Your task to perform on an android device: find snoozed emails in the gmail app Image 0: 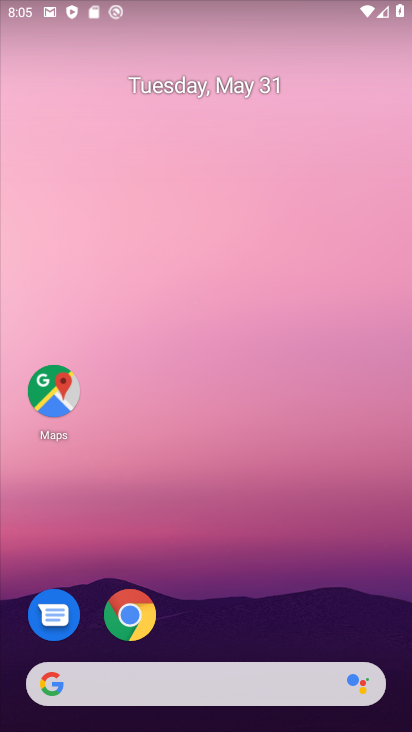
Step 0: drag from (394, 639) to (314, 42)
Your task to perform on an android device: find snoozed emails in the gmail app Image 1: 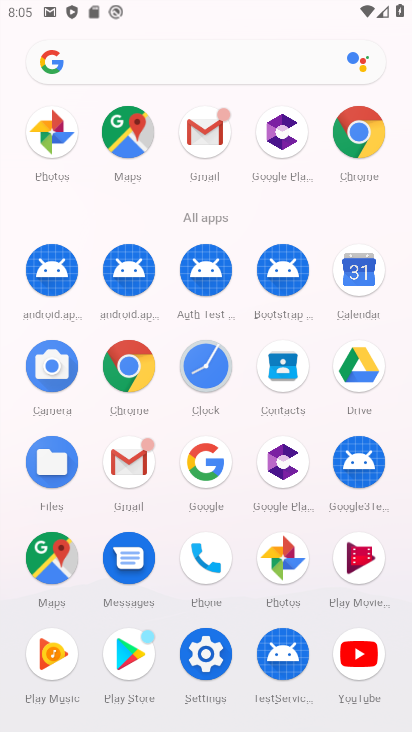
Step 1: click (124, 459)
Your task to perform on an android device: find snoozed emails in the gmail app Image 2: 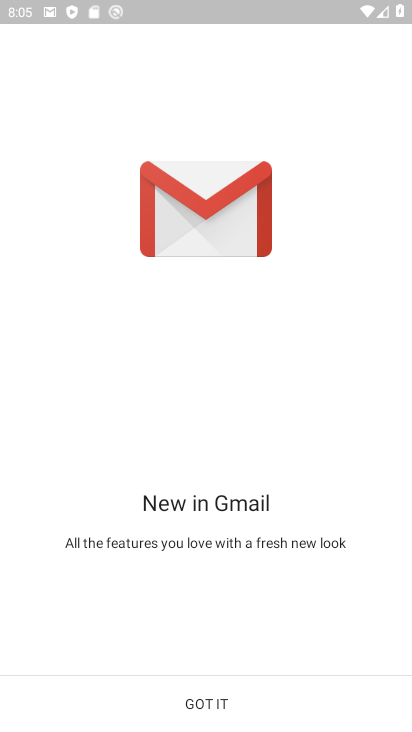
Step 2: click (202, 710)
Your task to perform on an android device: find snoozed emails in the gmail app Image 3: 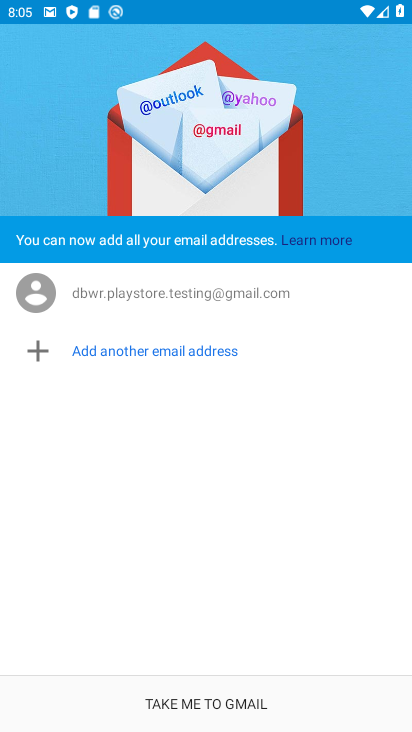
Step 3: click (202, 710)
Your task to perform on an android device: find snoozed emails in the gmail app Image 4: 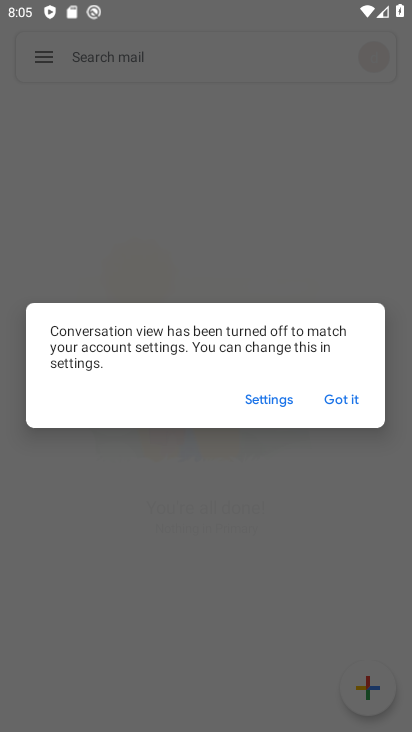
Step 4: click (347, 393)
Your task to perform on an android device: find snoozed emails in the gmail app Image 5: 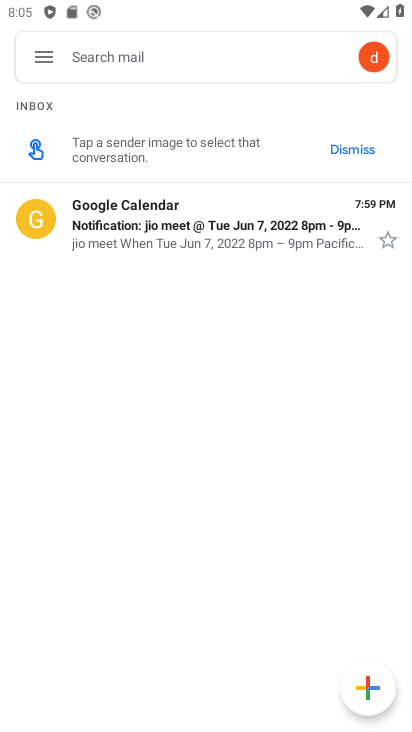
Step 5: click (39, 60)
Your task to perform on an android device: find snoozed emails in the gmail app Image 6: 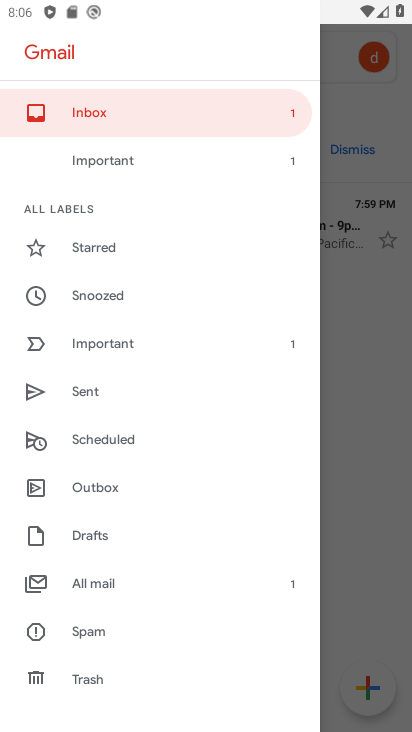
Step 6: click (103, 293)
Your task to perform on an android device: find snoozed emails in the gmail app Image 7: 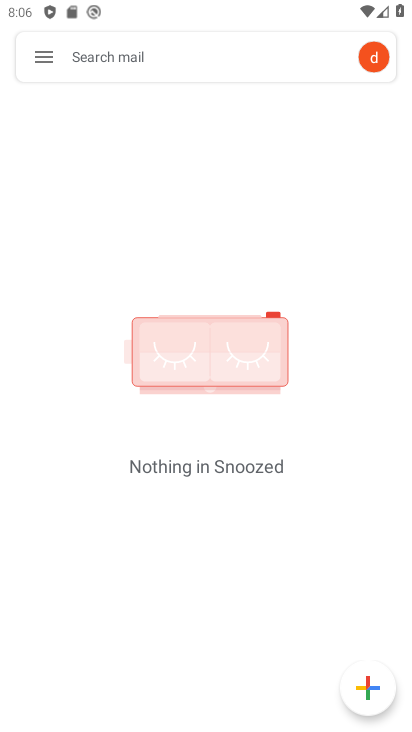
Step 7: task complete